Your task to perform on an android device: change timer sound Image 0: 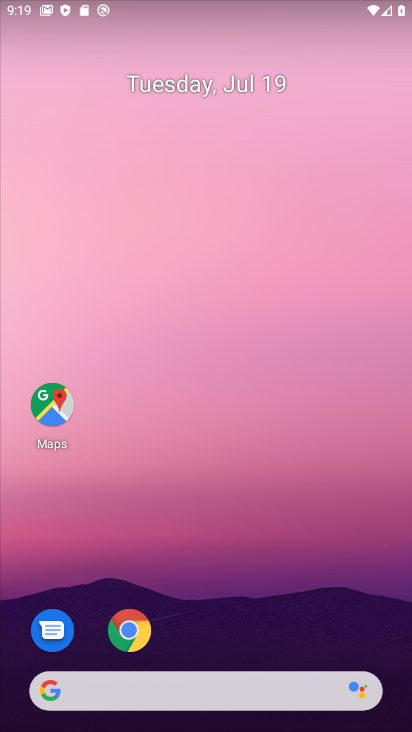
Step 0: drag from (217, 651) to (258, 8)
Your task to perform on an android device: change timer sound Image 1: 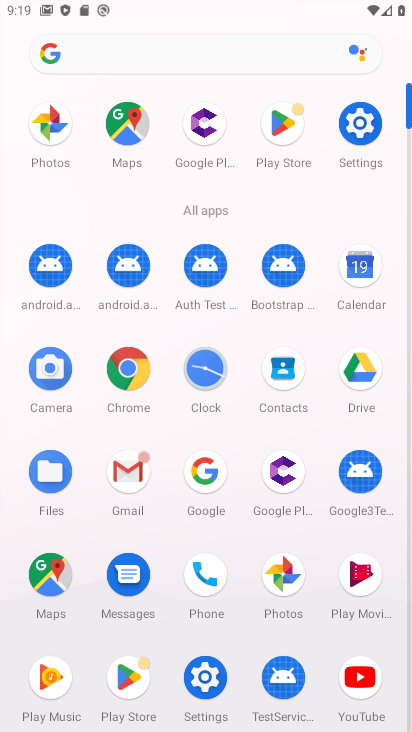
Step 1: click (208, 372)
Your task to perform on an android device: change timer sound Image 2: 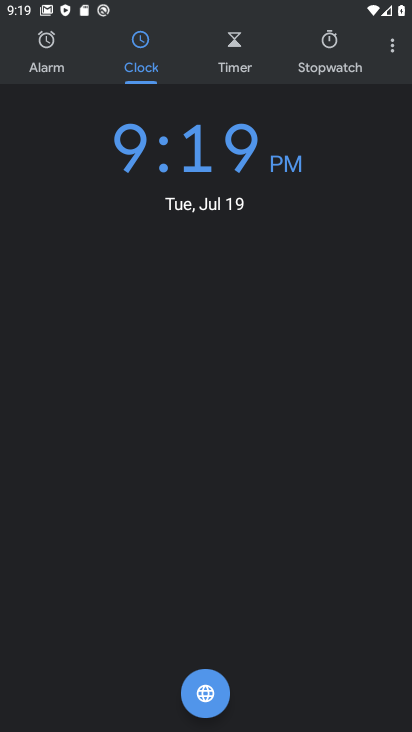
Step 2: click (388, 50)
Your task to perform on an android device: change timer sound Image 3: 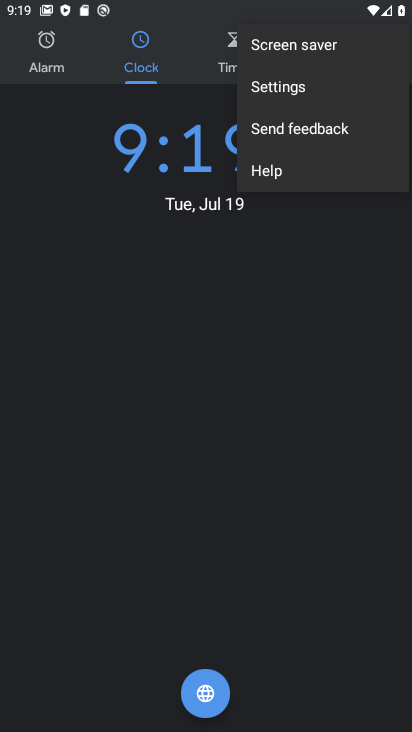
Step 3: click (298, 87)
Your task to perform on an android device: change timer sound Image 4: 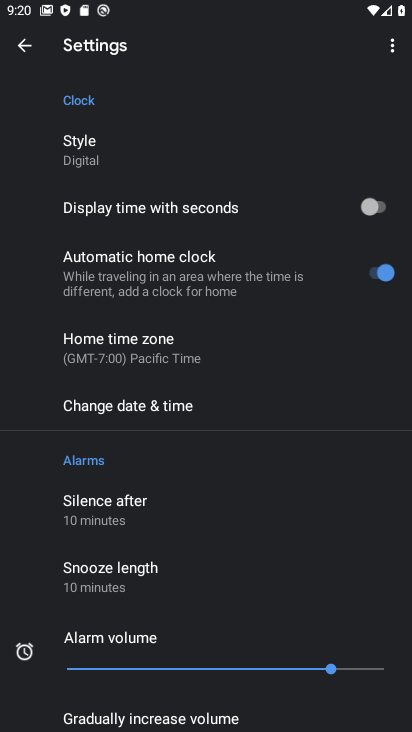
Step 4: drag from (150, 559) to (170, 233)
Your task to perform on an android device: change timer sound Image 5: 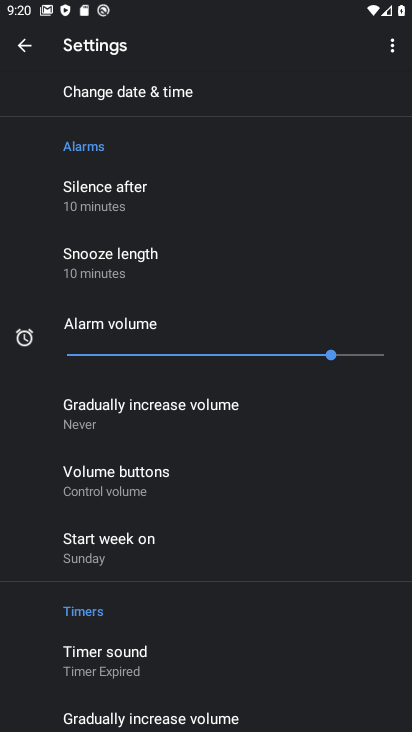
Step 5: click (126, 668)
Your task to perform on an android device: change timer sound Image 6: 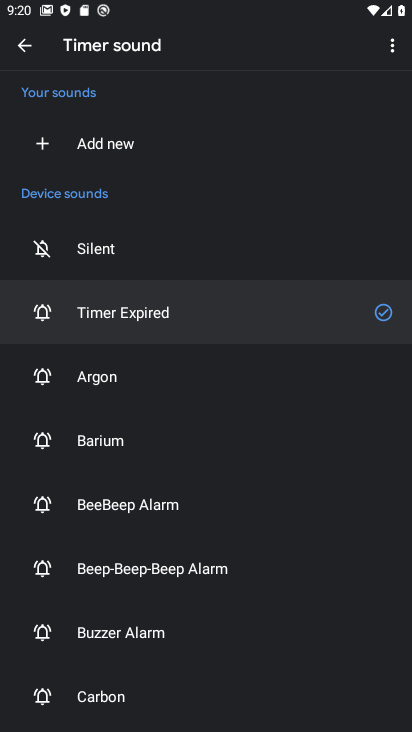
Step 6: click (103, 394)
Your task to perform on an android device: change timer sound Image 7: 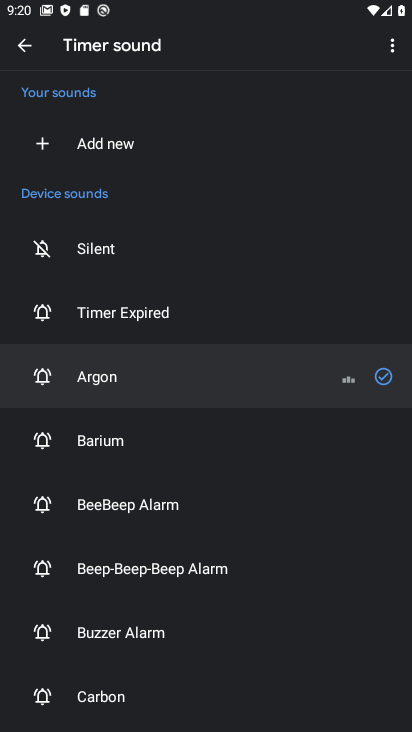
Step 7: task complete